Your task to perform on an android device: Do I have any events tomorrow? Image 0: 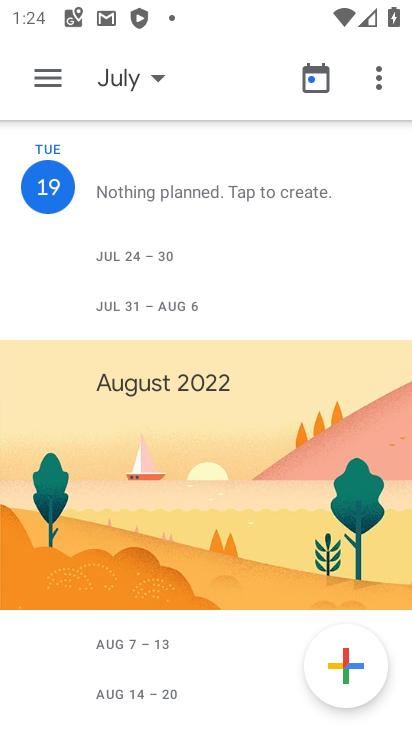
Step 0: press home button
Your task to perform on an android device: Do I have any events tomorrow? Image 1: 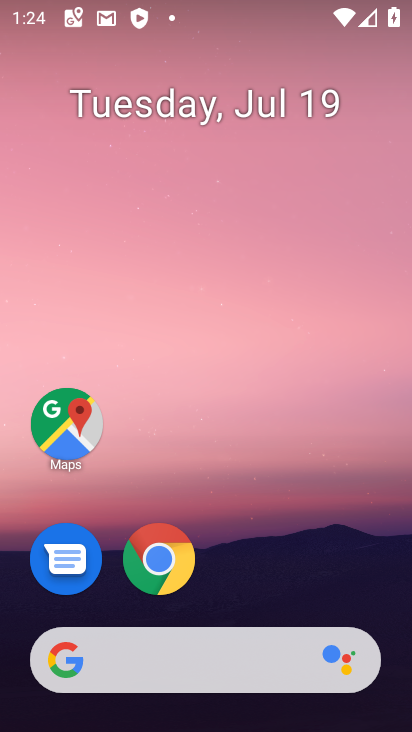
Step 1: drag from (183, 585) to (173, 97)
Your task to perform on an android device: Do I have any events tomorrow? Image 2: 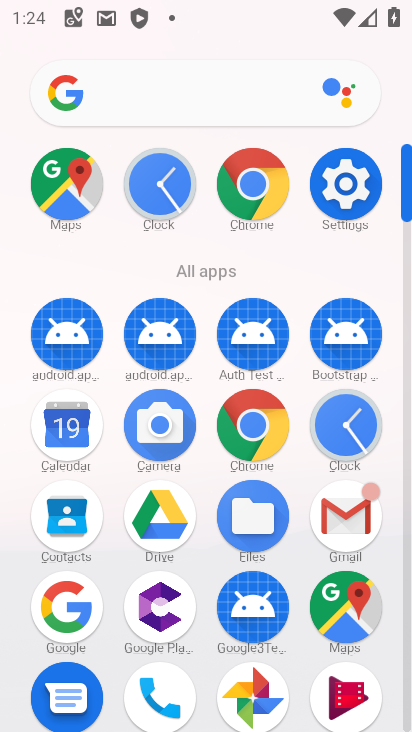
Step 2: click (48, 426)
Your task to perform on an android device: Do I have any events tomorrow? Image 3: 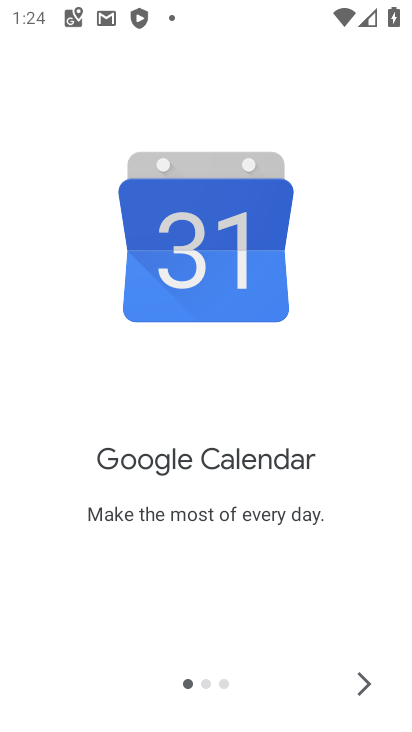
Step 3: click (359, 684)
Your task to perform on an android device: Do I have any events tomorrow? Image 4: 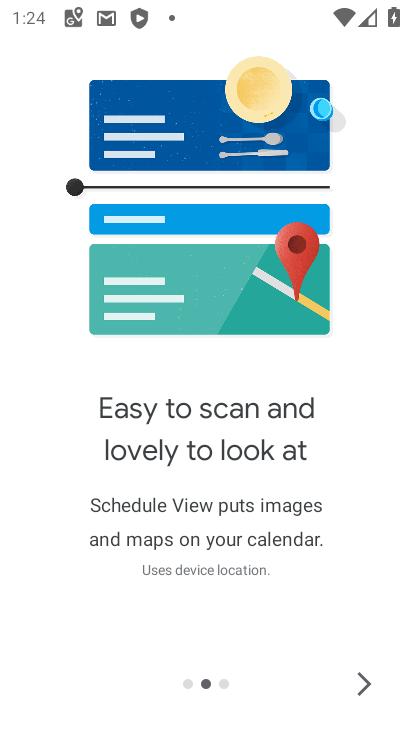
Step 4: click (359, 684)
Your task to perform on an android device: Do I have any events tomorrow? Image 5: 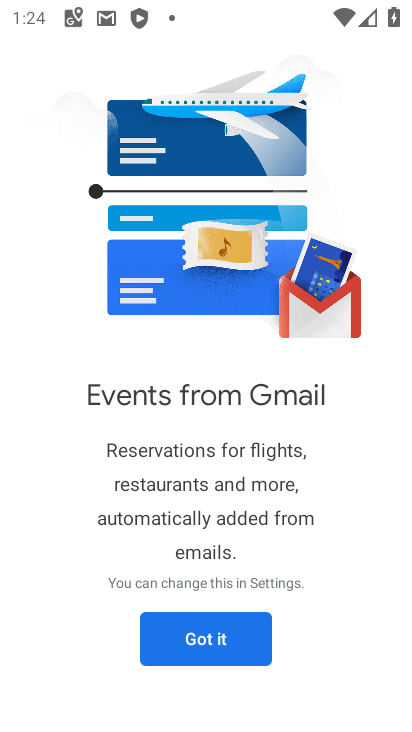
Step 5: click (189, 646)
Your task to perform on an android device: Do I have any events tomorrow? Image 6: 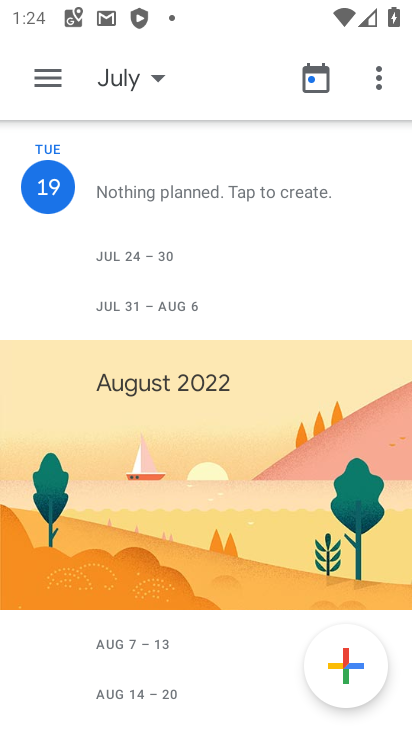
Step 6: click (126, 77)
Your task to perform on an android device: Do I have any events tomorrow? Image 7: 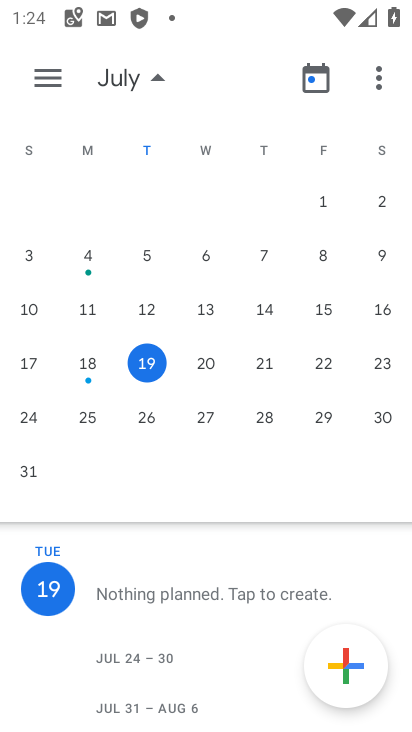
Step 7: click (203, 368)
Your task to perform on an android device: Do I have any events tomorrow? Image 8: 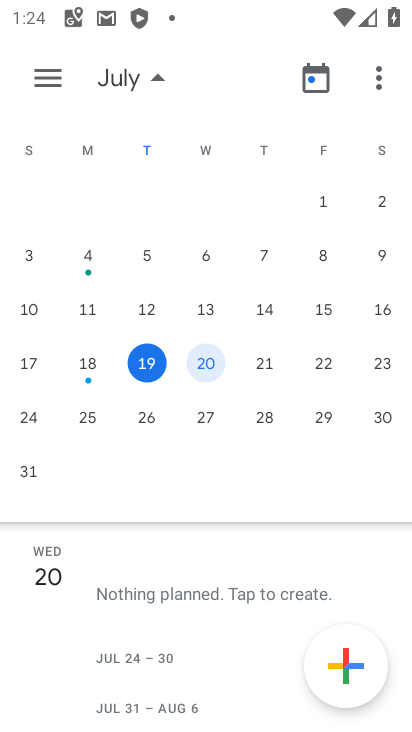
Step 8: task complete